Your task to perform on an android device: Search for pizza restaurants on Maps Image 0: 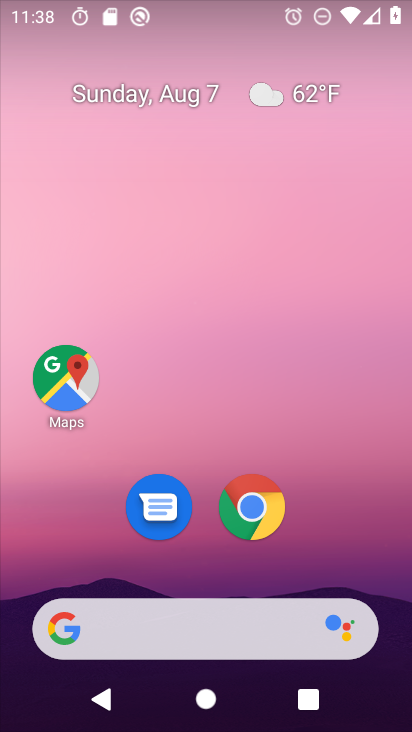
Step 0: drag from (360, 552) to (386, 21)
Your task to perform on an android device: Search for pizza restaurants on Maps Image 1: 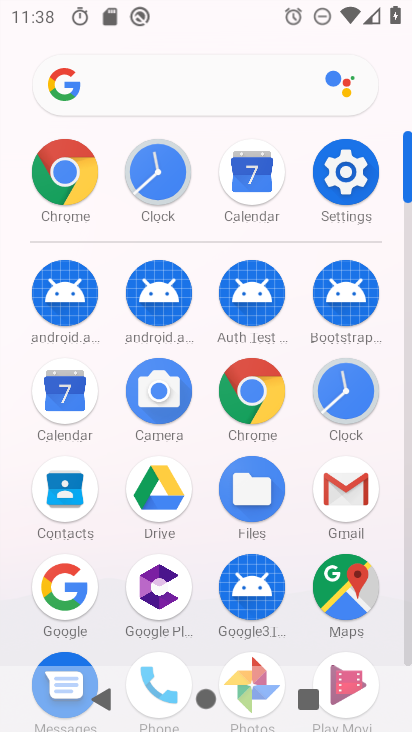
Step 1: click (344, 574)
Your task to perform on an android device: Search for pizza restaurants on Maps Image 2: 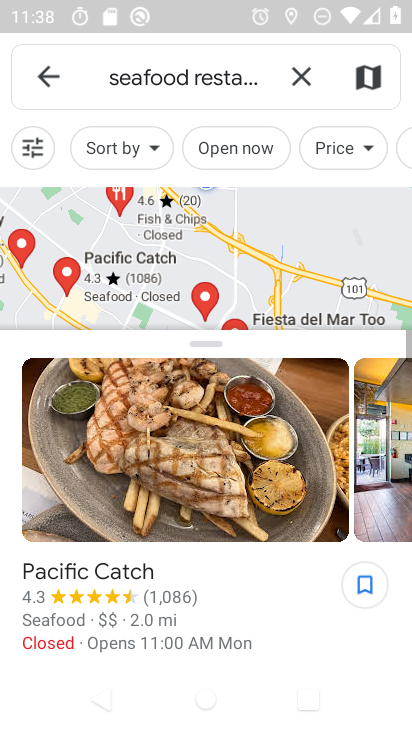
Step 2: click (232, 74)
Your task to perform on an android device: Search for pizza restaurants on Maps Image 3: 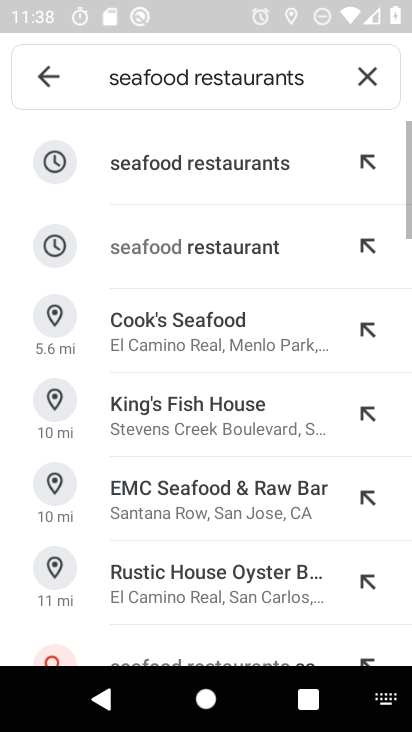
Step 3: click (363, 69)
Your task to perform on an android device: Search for pizza restaurants on Maps Image 4: 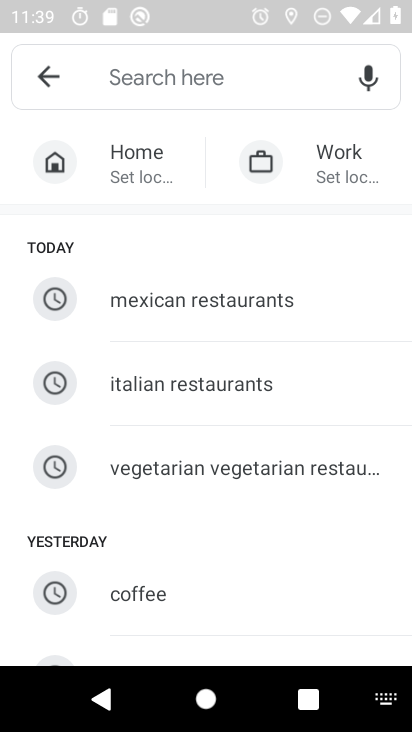
Step 4: type "pizza restaurants"
Your task to perform on an android device: Search for pizza restaurants on Maps Image 5: 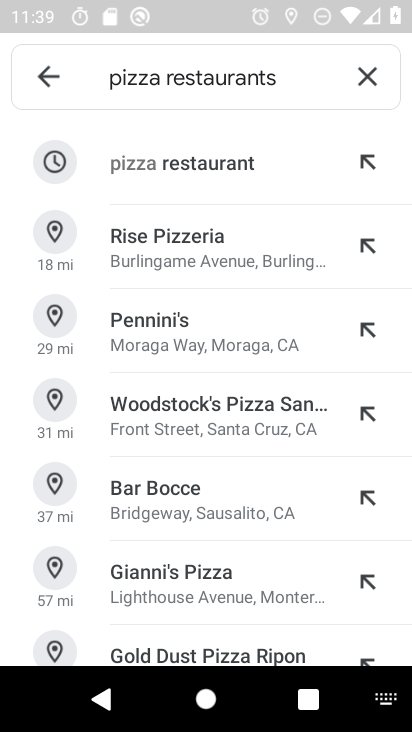
Step 5: press enter
Your task to perform on an android device: Search for pizza restaurants on Maps Image 6: 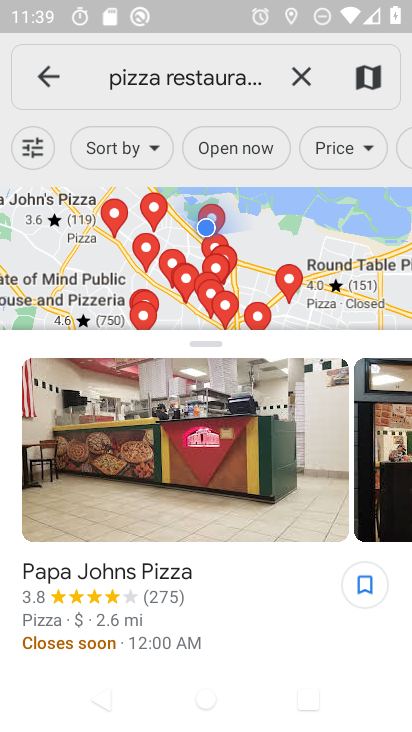
Step 6: task complete